Your task to perform on an android device: see tabs open on other devices in the chrome app Image 0: 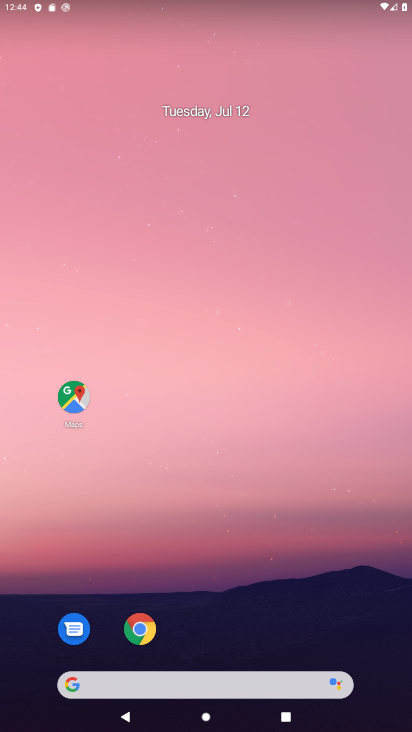
Step 0: press home button
Your task to perform on an android device: see tabs open on other devices in the chrome app Image 1: 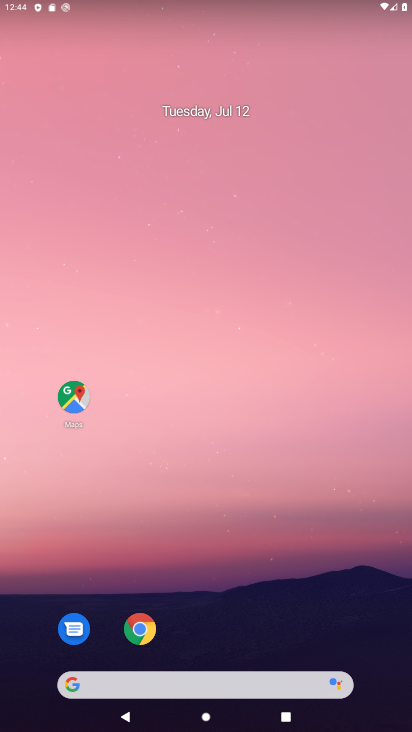
Step 1: click (138, 627)
Your task to perform on an android device: see tabs open on other devices in the chrome app Image 2: 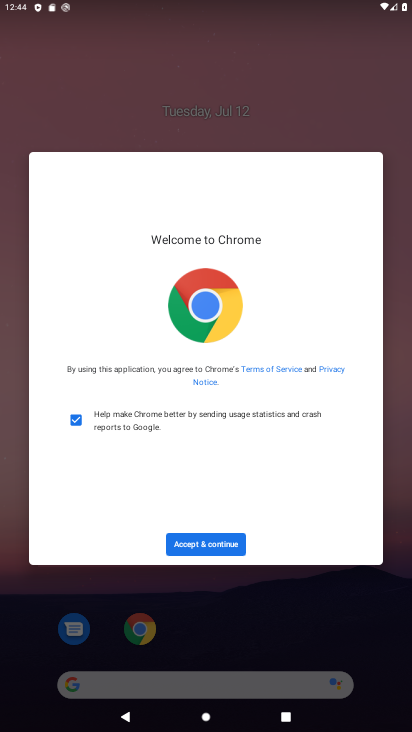
Step 2: click (215, 542)
Your task to perform on an android device: see tabs open on other devices in the chrome app Image 3: 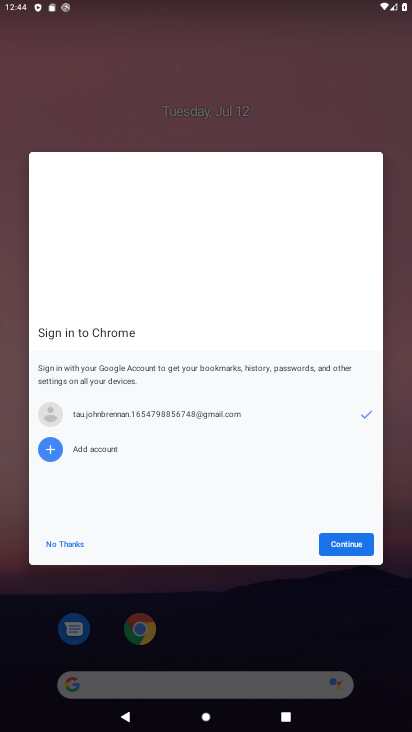
Step 3: click (334, 548)
Your task to perform on an android device: see tabs open on other devices in the chrome app Image 4: 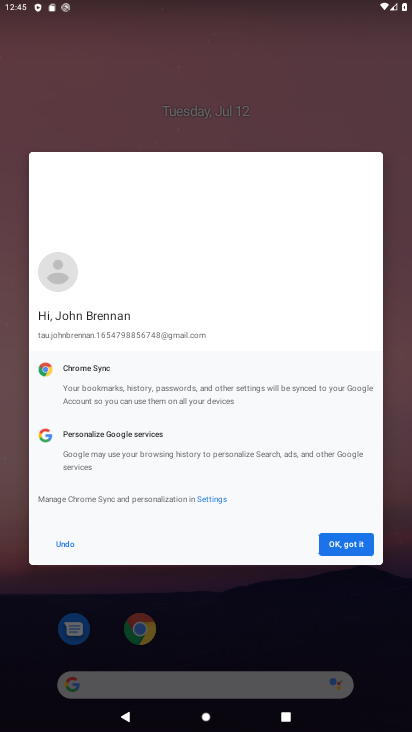
Step 4: click (340, 548)
Your task to perform on an android device: see tabs open on other devices in the chrome app Image 5: 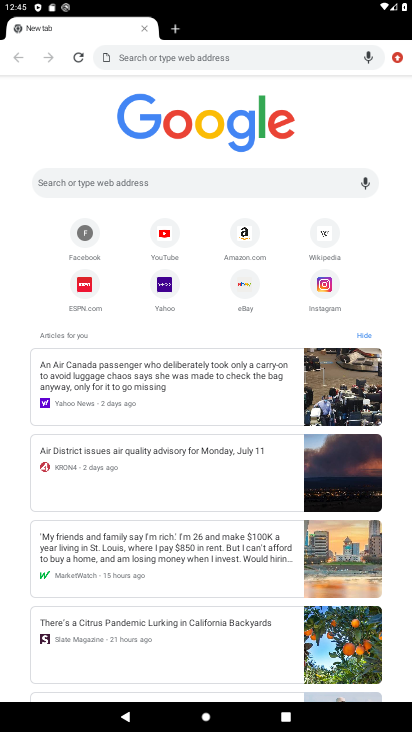
Step 5: click (395, 53)
Your task to perform on an android device: see tabs open on other devices in the chrome app Image 6: 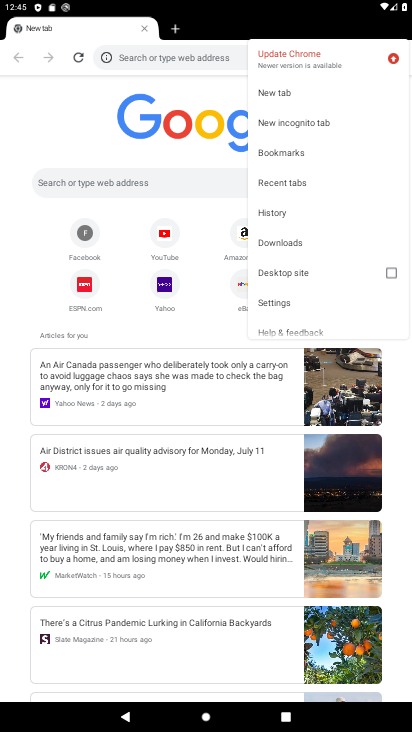
Step 6: click (314, 182)
Your task to perform on an android device: see tabs open on other devices in the chrome app Image 7: 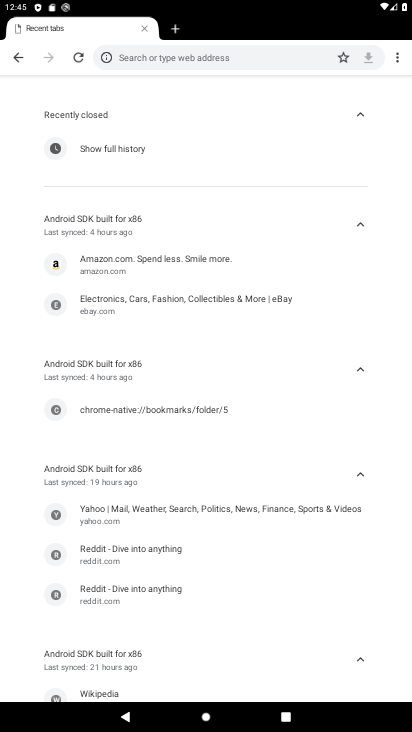
Step 7: task complete